Your task to perform on an android device: Go to calendar. Show me events next week Image 0: 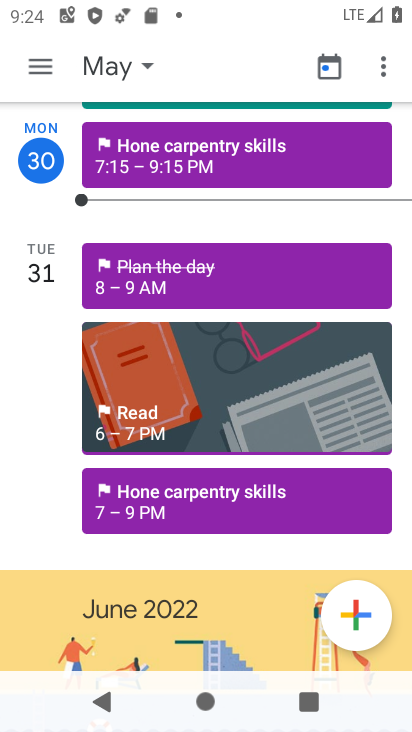
Step 0: click (42, 61)
Your task to perform on an android device: Go to calendar. Show me events next week Image 1: 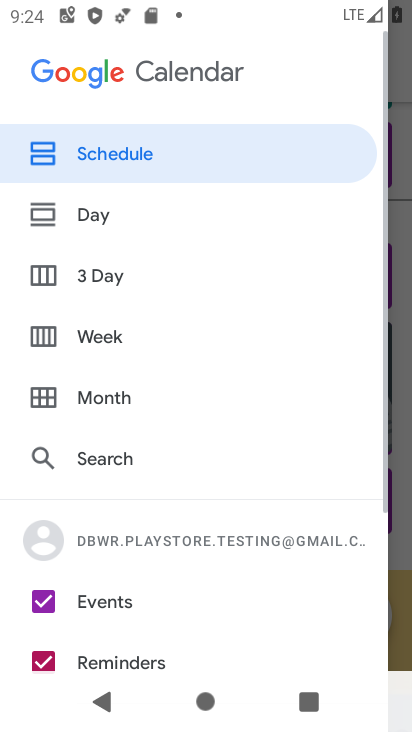
Step 1: click (36, 336)
Your task to perform on an android device: Go to calendar. Show me events next week Image 2: 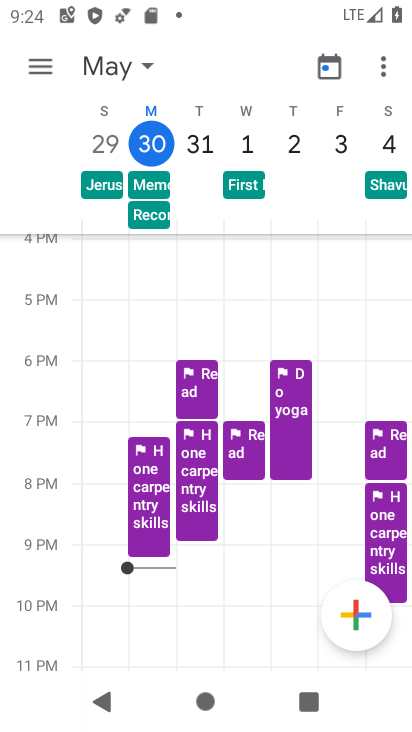
Step 2: task complete